Your task to perform on an android device: open wifi settings Image 0: 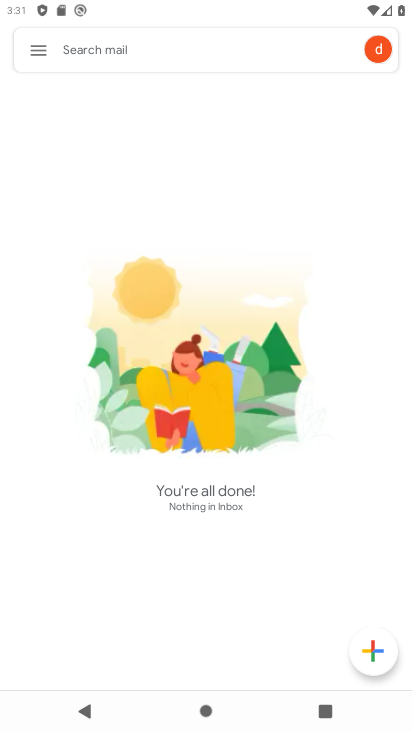
Step 0: drag from (188, 11) to (203, 479)
Your task to perform on an android device: open wifi settings Image 1: 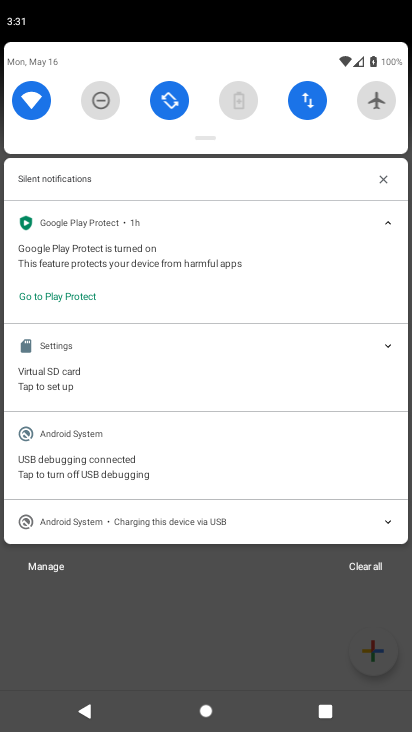
Step 1: click (30, 104)
Your task to perform on an android device: open wifi settings Image 2: 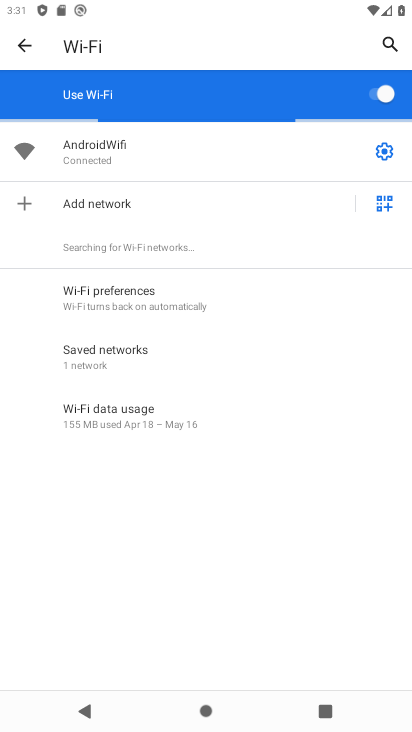
Step 2: task complete